Your task to perform on an android device: open a bookmark in the chrome app Image 0: 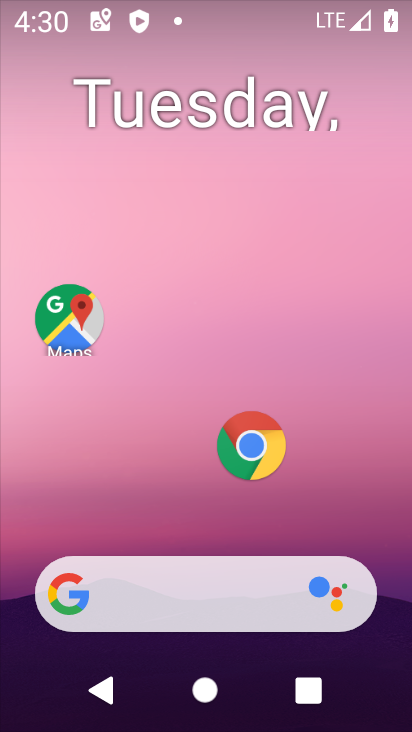
Step 0: click (254, 434)
Your task to perform on an android device: open a bookmark in the chrome app Image 1: 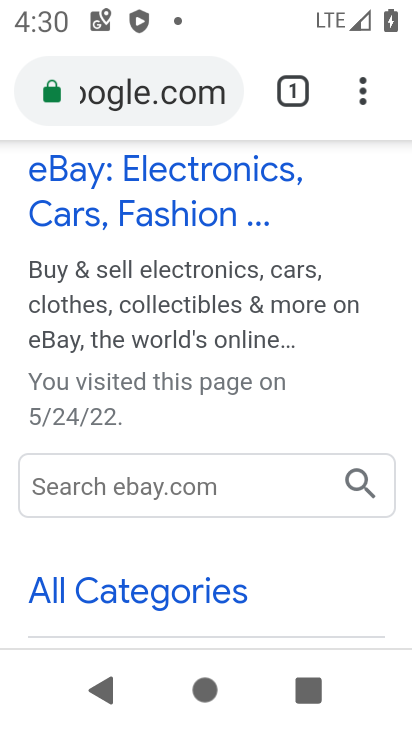
Step 1: click (365, 82)
Your task to perform on an android device: open a bookmark in the chrome app Image 2: 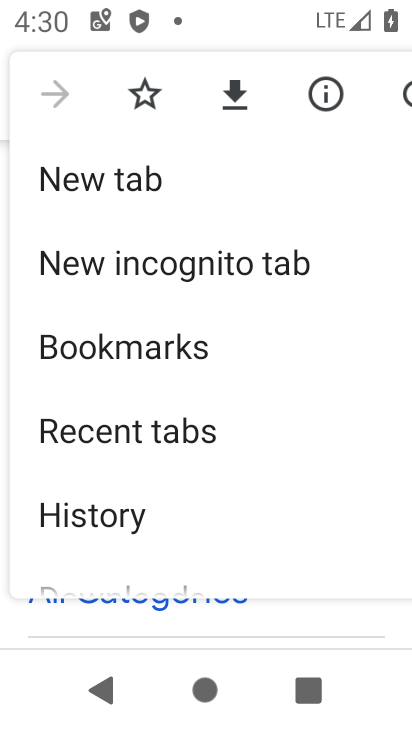
Step 2: click (137, 370)
Your task to perform on an android device: open a bookmark in the chrome app Image 3: 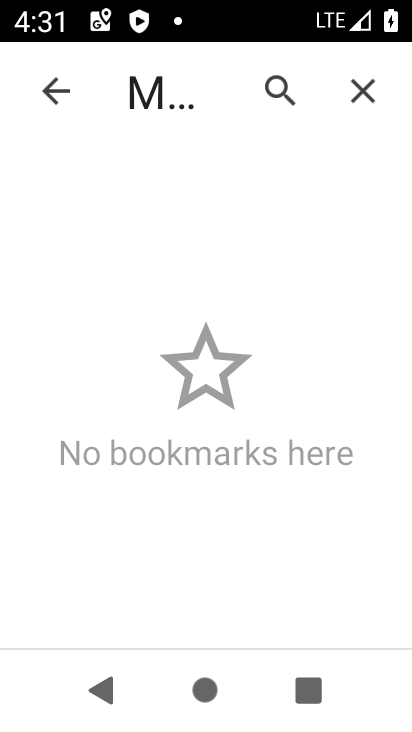
Step 3: task complete